Your task to perform on an android device: turn on priority inbox in the gmail app Image 0: 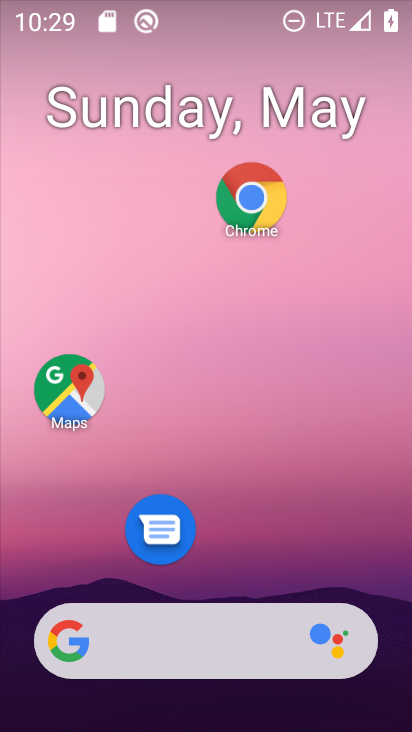
Step 0: drag from (290, 550) to (292, 24)
Your task to perform on an android device: turn on priority inbox in the gmail app Image 1: 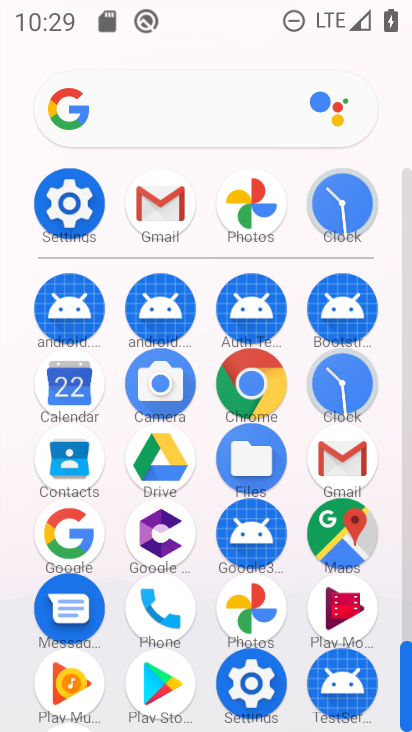
Step 1: click (339, 461)
Your task to perform on an android device: turn on priority inbox in the gmail app Image 2: 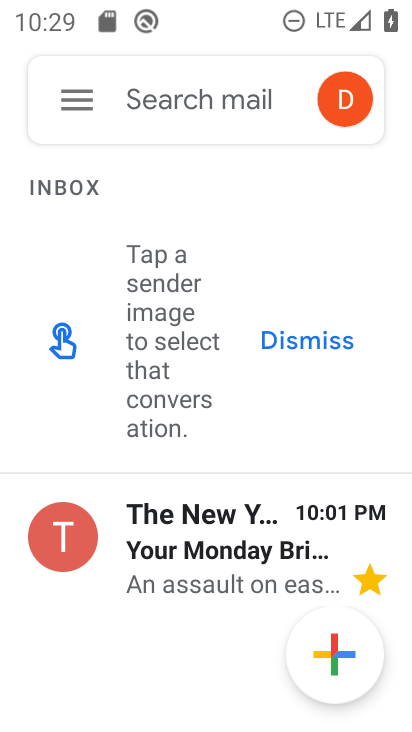
Step 2: click (74, 96)
Your task to perform on an android device: turn on priority inbox in the gmail app Image 3: 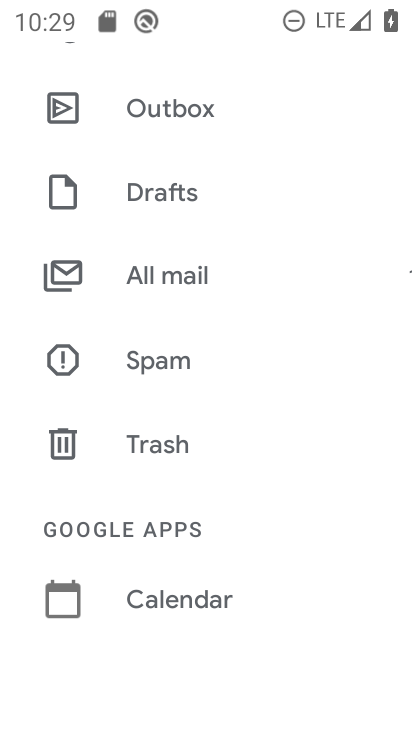
Step 3: drag from (148, 594) to (180, 300)
Your task to perform on an android device: turn on priority inbox in the gmail app Image 4: 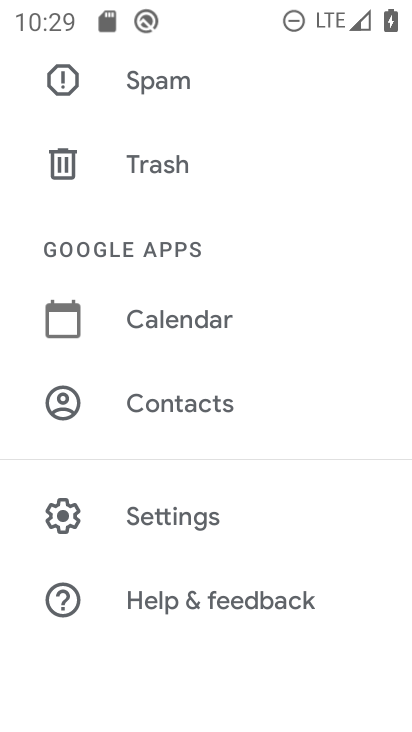
Step 4: click (171, 504)
Your task to perform on an android device: turn on priority inbox in the gmail app Image 5: 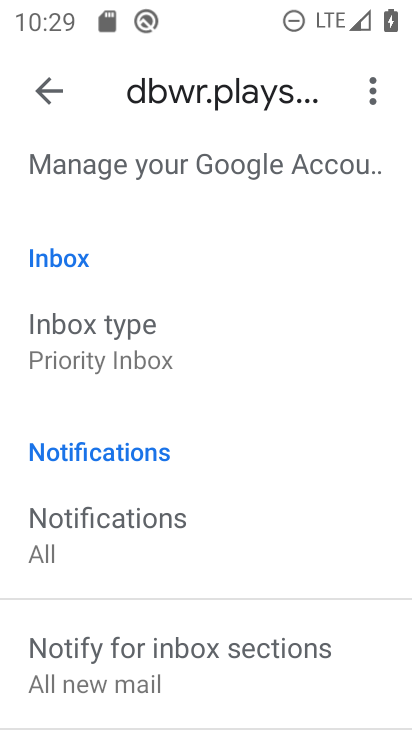
Step 5: click (95, 364)
Your task to perform on an android device: turn on priority inbox in the gmail app Image 6: 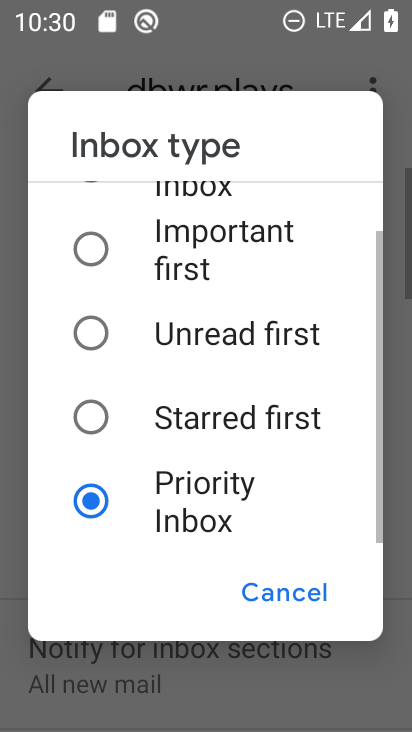
Step 6: click (152, 491)
Your task to perform on an android device: turn on priority inbox in the gmail app Image 7: 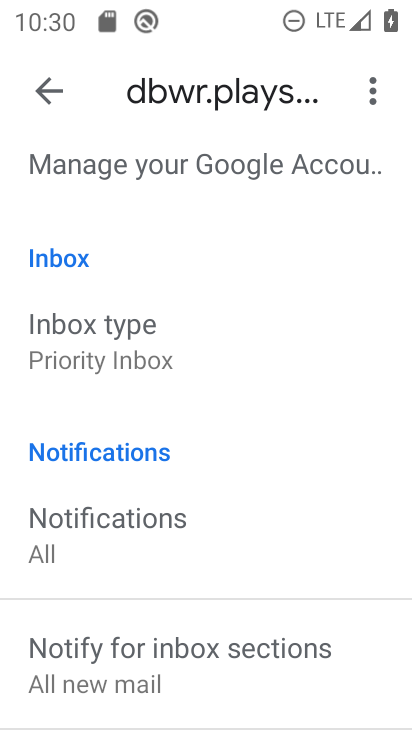
Step 7: task complete